Your task to perform on an android device: change notifications settings Image 0: 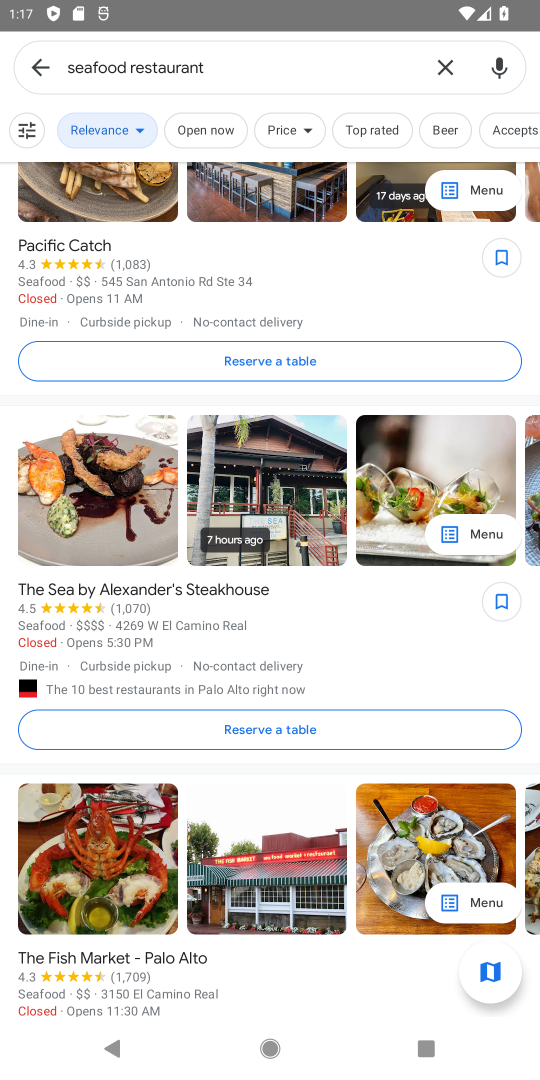
Step 0: press home button
Your task to perform on an android device: change notifications settings Image 1: 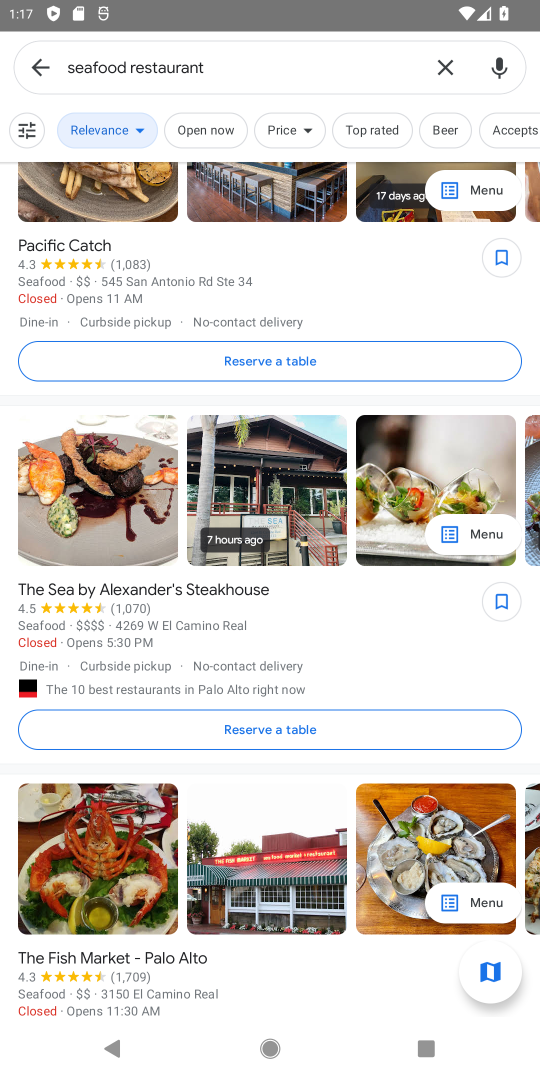
Step 1: press home button
Your task to perform on an android device: change notifications settings Image 2: 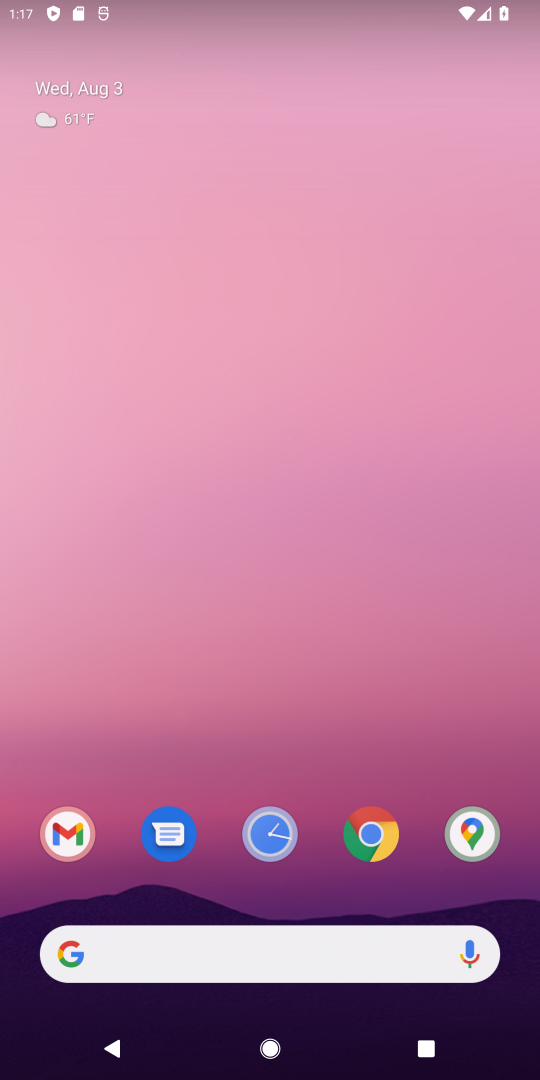
Step 2: drag from (296, 949) to (288, 317)
Your task to perform on an android device: change notifications settings Image 3: 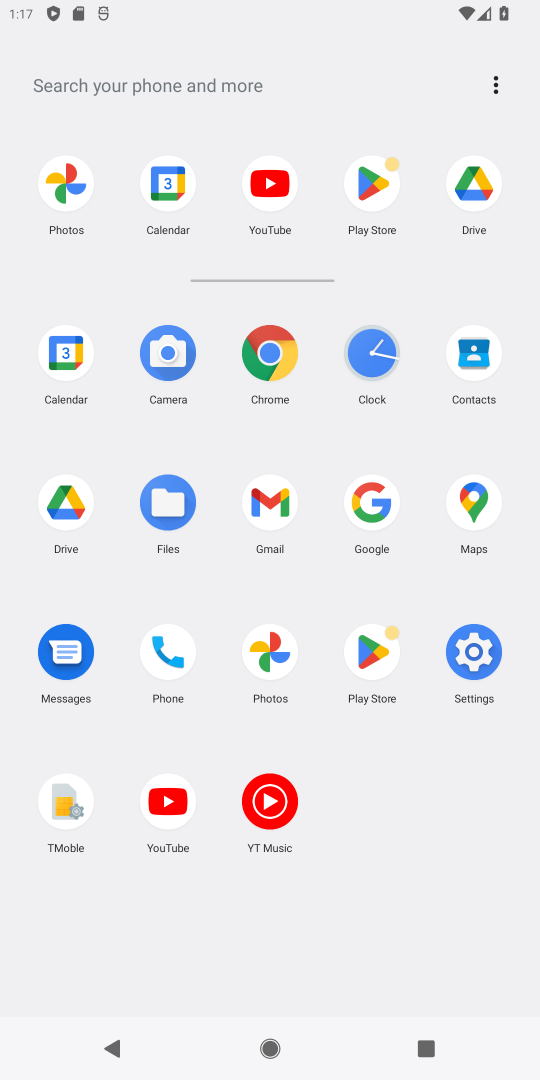
Step 3: click (457, 646)
Your task to perform on an android device: change notifications settings Image 4: 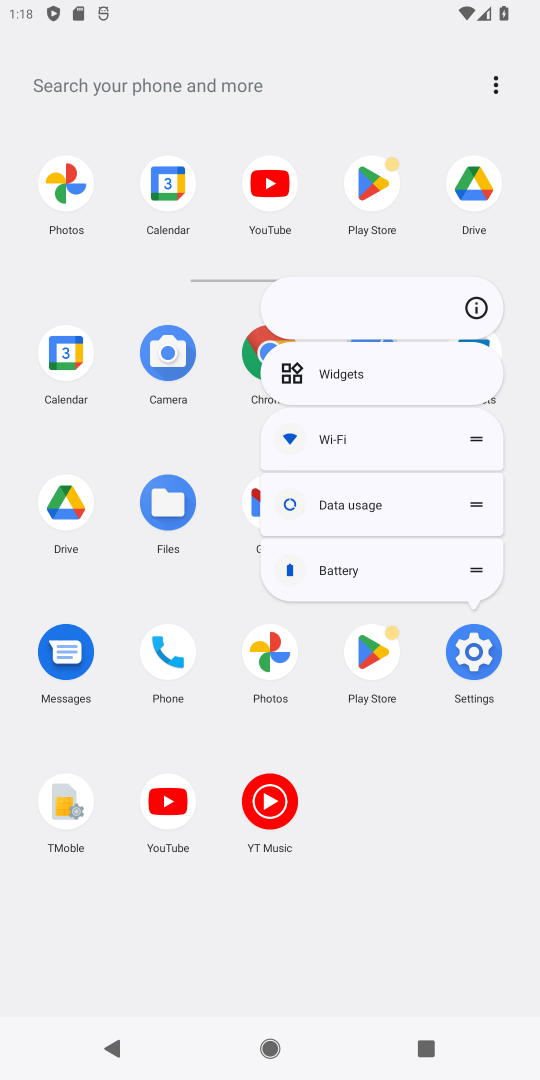
Step 4: click (469, 325)
Your task to perform on an android device: change notifications settings Image 5: 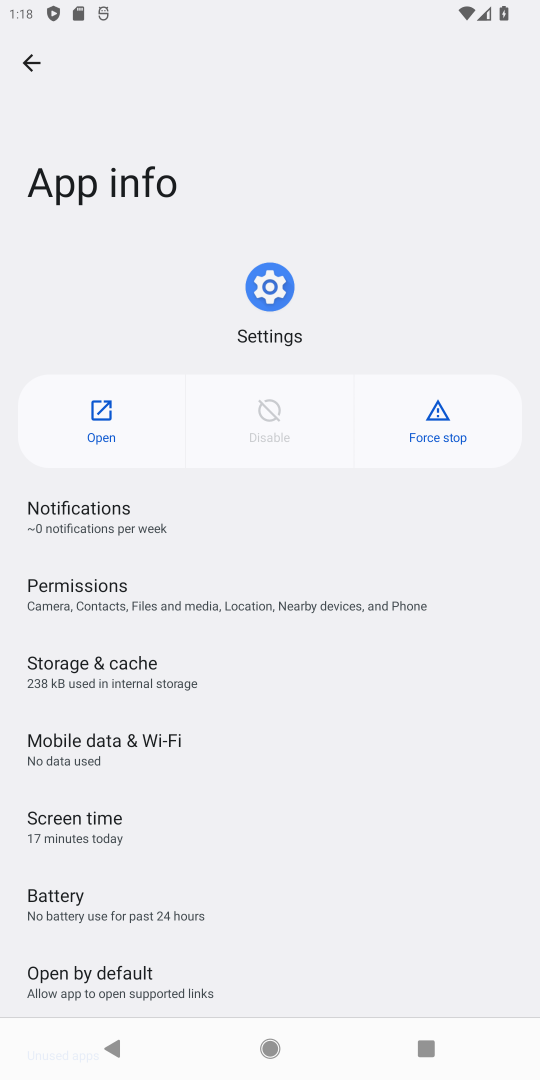
Step 5: click (109, 424)
Your task to perform on an android device: change notifications settings Image 6: 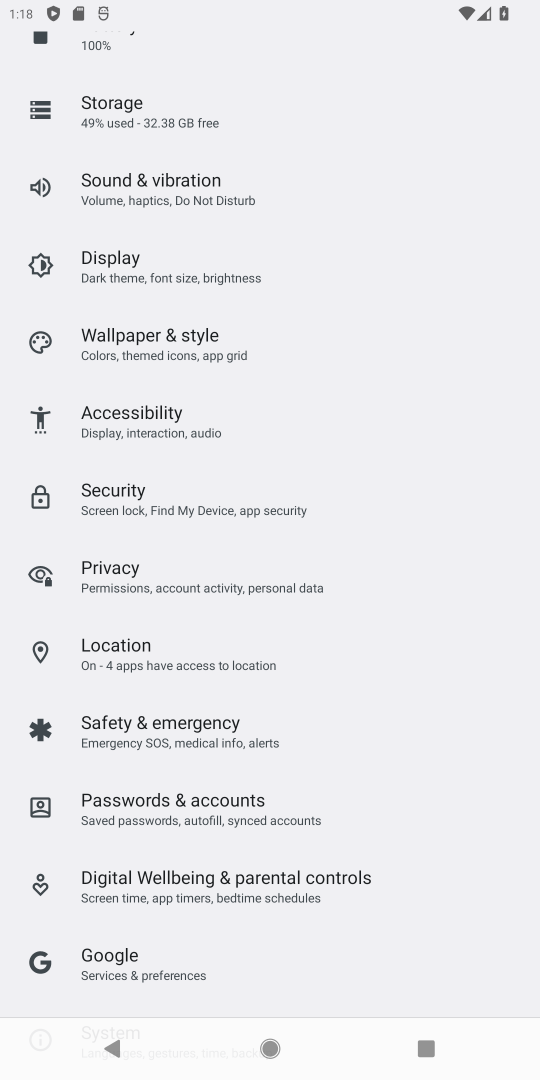
Step 6: drag from (236, 239) to (306, 1027)
Your task to perform on an android device: change notifications settings Image 7: 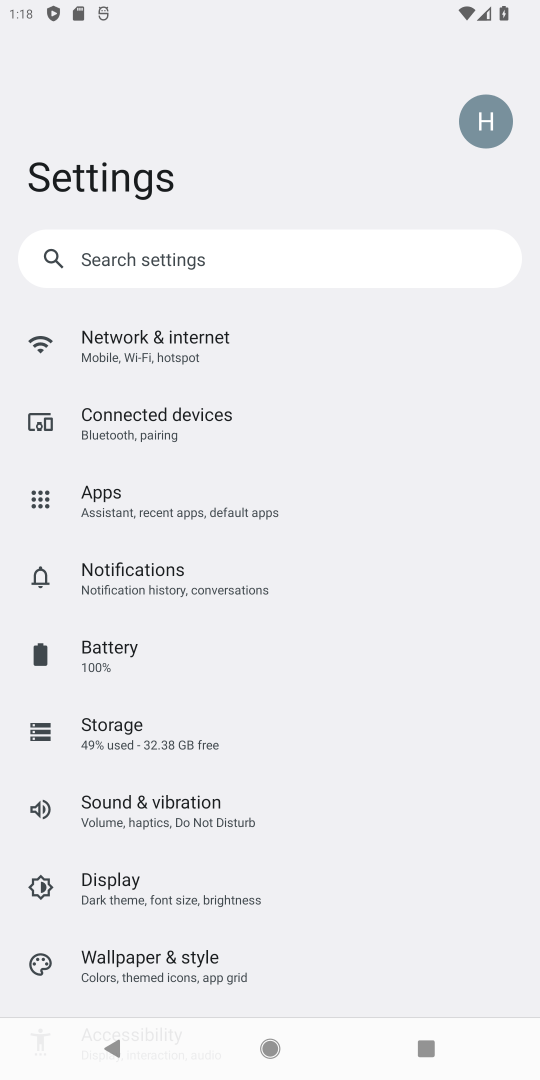
Step 7: click (126, 584)
Your task to perform on an android device: change notifications settings Image 8: 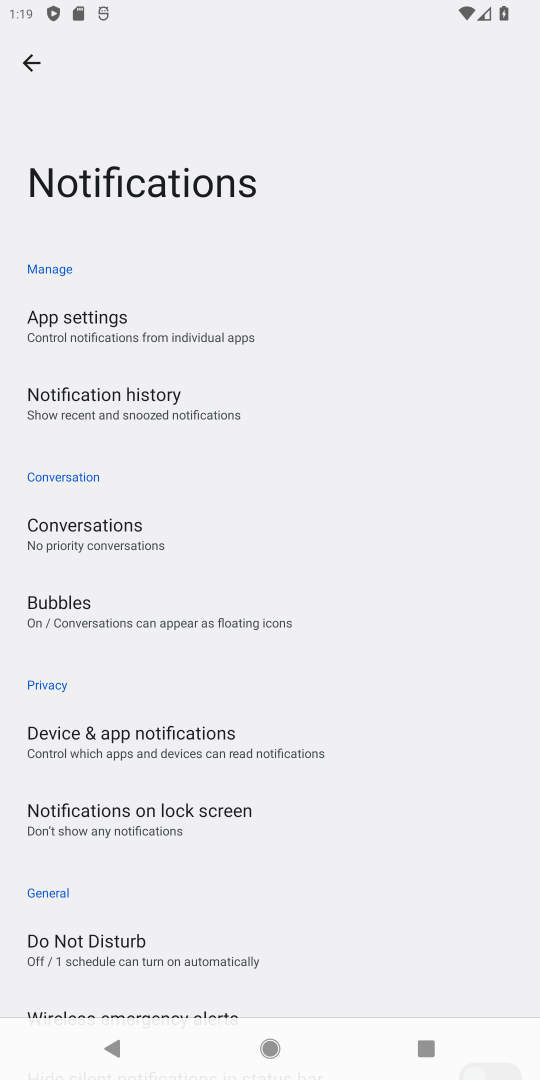
Step 8: task complete